Your task to perform on an android device: turn off location Image 0: 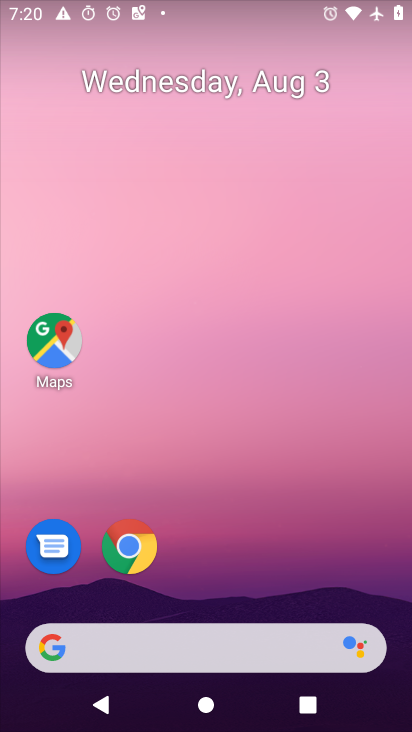
Step 0: drag from (304, 200) to (290, 0)
Your task to perform on an android device: turn off location Image 1: 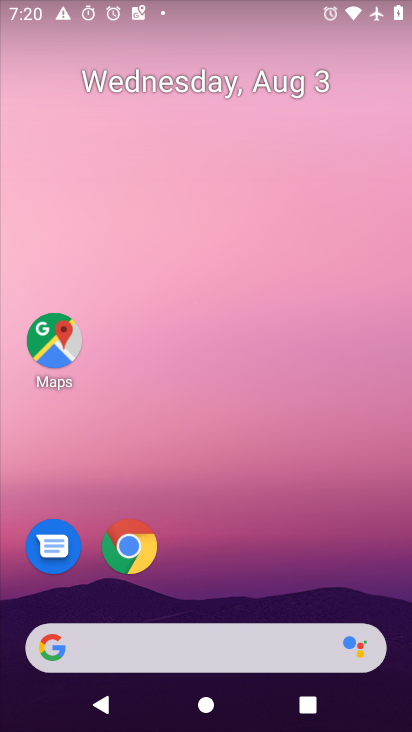
Step 1: drag from (219, 594) to (410, 347)
Your task to perform on an android device: turn off location Image 2: 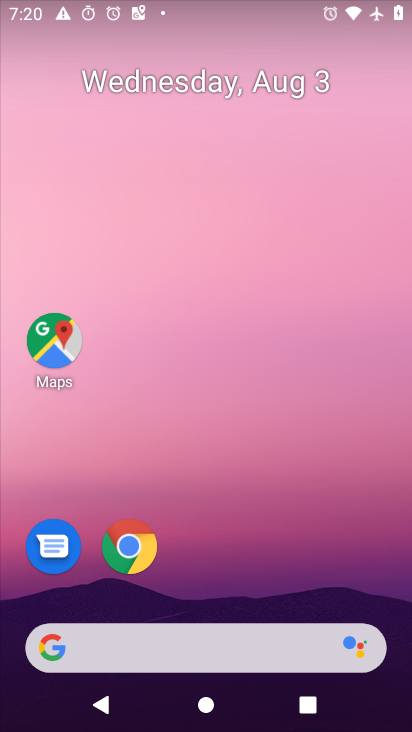
Step 2: drag from (248, 614) to (292, 12)
Your task to perform on an android device: turn off location Image 3: 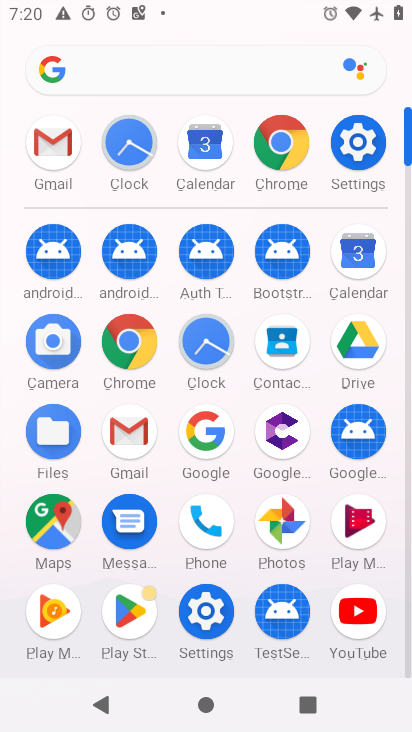
Step 3: click (348, 166)
Your task to perform on an android device: turn off location Image 4: 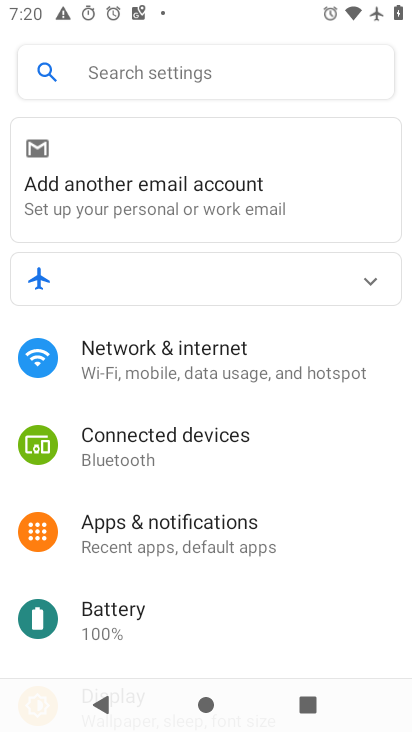
Step 4: drag from (223, 561) to (217, 155)
Your task to perform on an android device: turn off location Image 5: 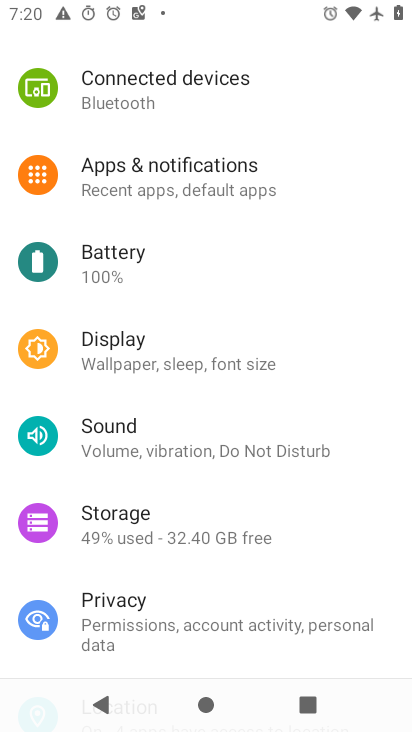
Step 5: drag from (222, 568) to (196, 160)
Your task to perform on an android device: turn off location Image 6: 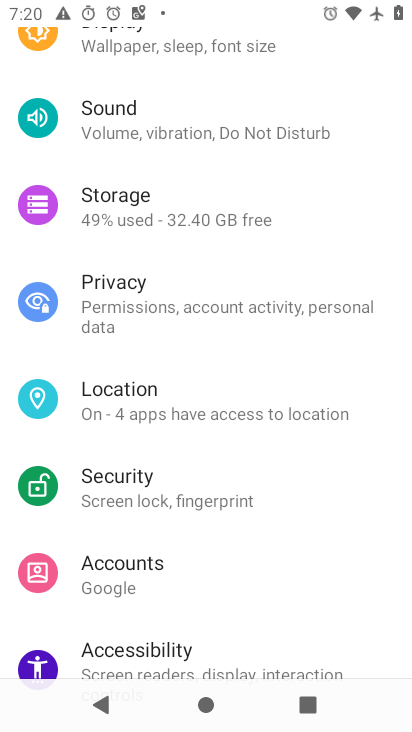
Step 6: click (114, 394)
Your task to perform on an android device: turn off location Image 7: 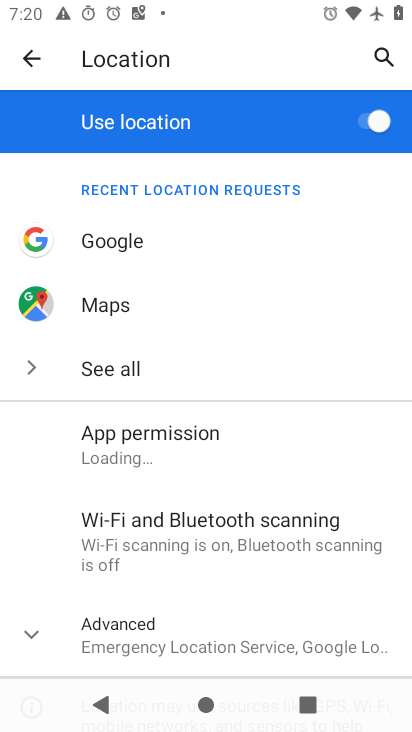
Step 7: click (371, 119)
Your task to perform on an android device: turn off location Image 8: 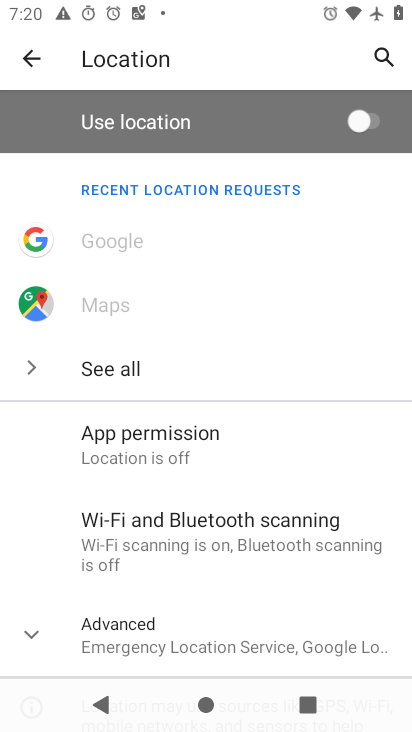
Step 8: task complete